Your task to perform on an android device: What's the weather going to be tomorrow? Image 0: 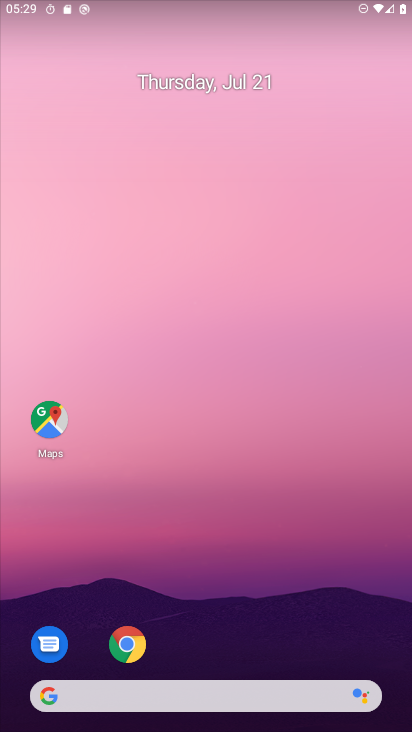
Step 0: click (46, 418)
Your task to perform on an android device: What's the weather going to be tomorrow? Image 1: 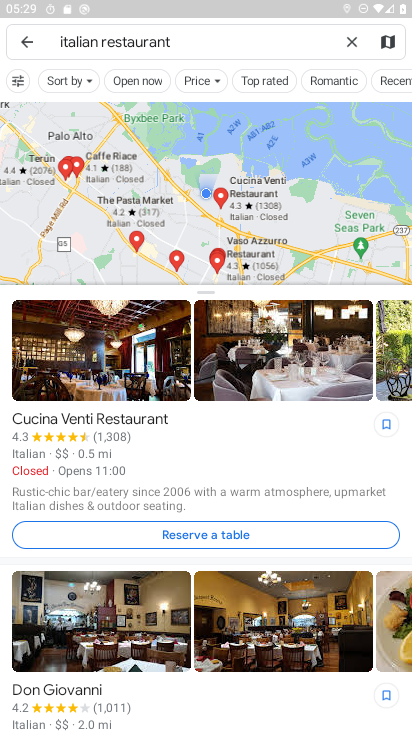
Step 1: press back button
Your task to perform on an android device: What's the weather going to be tomorrow? Image 2: 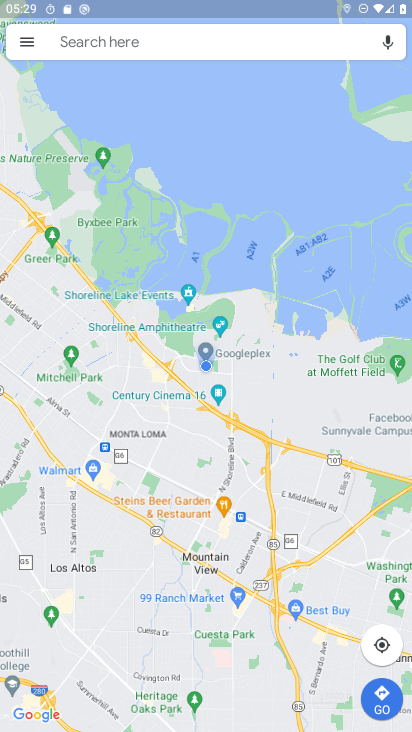
Step 2: press back button
Your task to perform on an android device: What's the weather going to be tomorrow? Image 3: 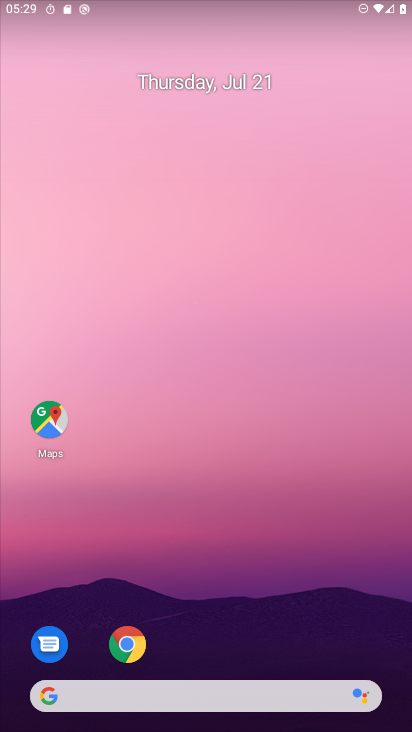
Step 3: click (243, 692)
Your task to perform on an android device: What's the weather going to be tomorrow? Image 4: 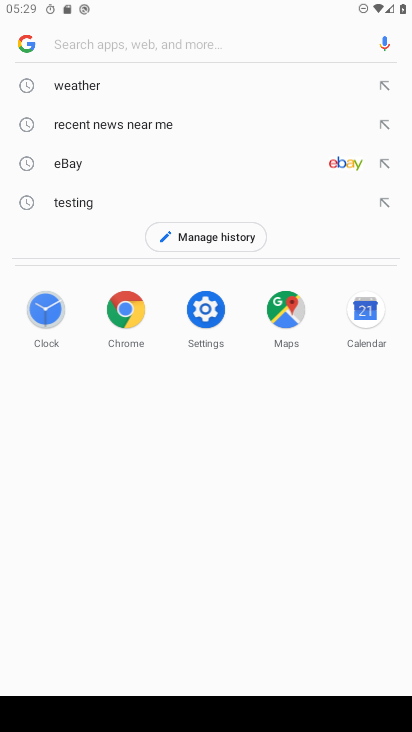
Step 4: click (78, 83)
Your task to perform on an android device: What's the weather going to be tomorrow? Image 5: 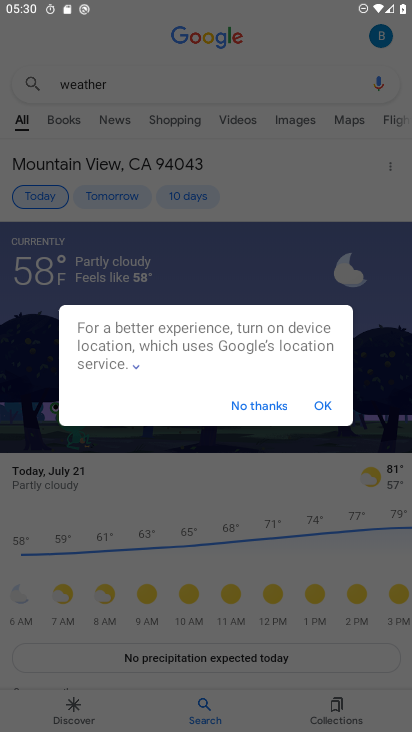
Step 5: click (250, 400)
Your task to perform on an android device: What's the weather going to be tomorrow? Image 6: 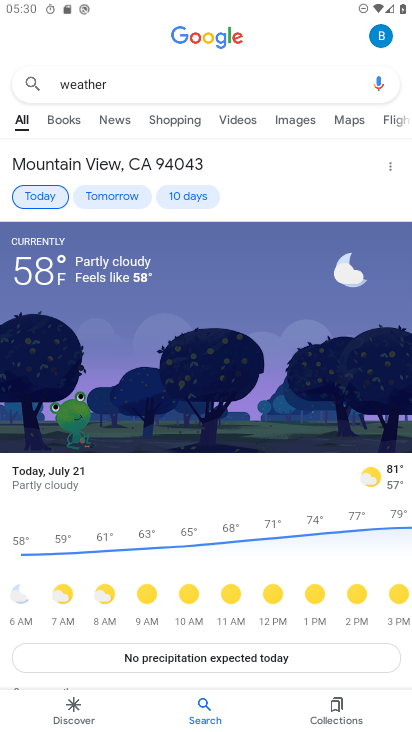
Step 6: click (105, 202)
Your task to perform on an android device: What's the weather going to be tomorrow? Image 7: 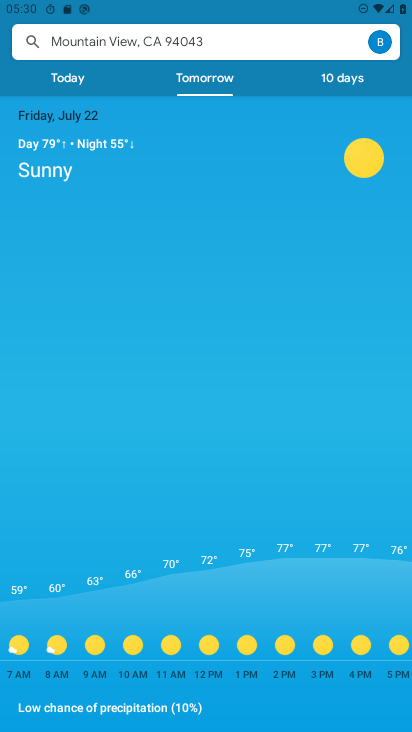
Step 7: task complete